Your task to perform on an android device: turn on data saver in the chrome app Image 0: 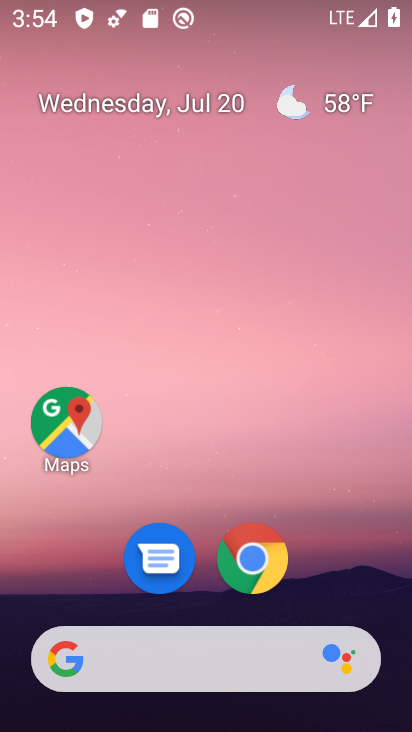
Step 0: click (266, 549)
Your task to perform on an android device: turn on data saver in the chrome app Image 1: 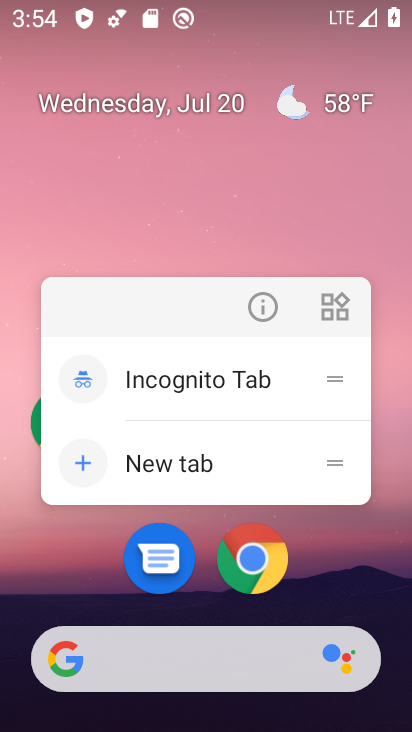
Step 1: click (266, 555)
Your task to perform on an android device: turn on data saver in the chrome app Image 2: 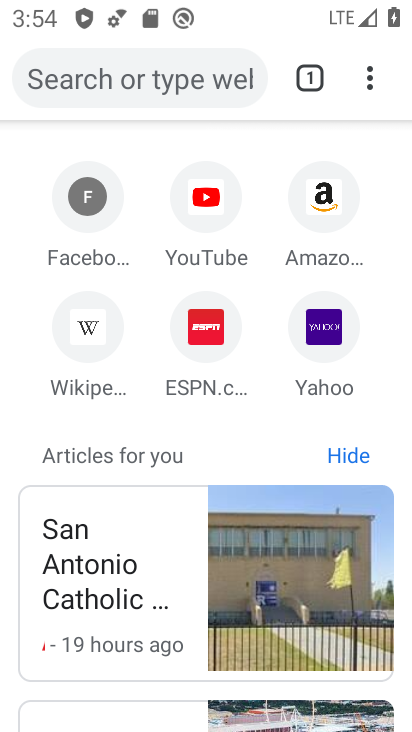
Step 2: drag from (372, 82) to (124, 633)
Your task to perform on an android device: turn on data saver in the chrome app Image 3: 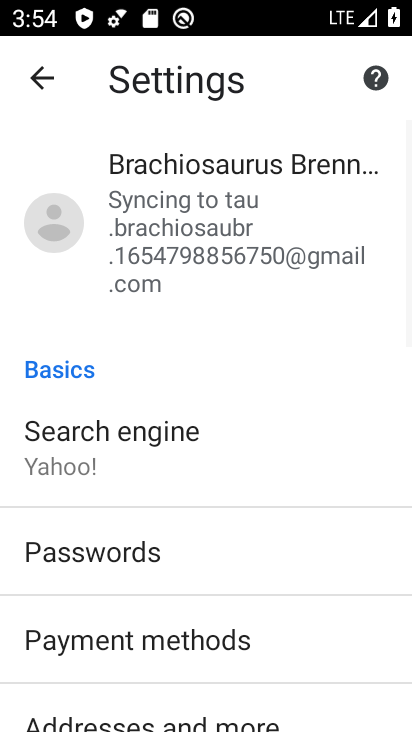
Step 3: drag from (139, 686) to (291, 136)
Your task to perform on an android device: turn on data saver in the chrome app Image 4: 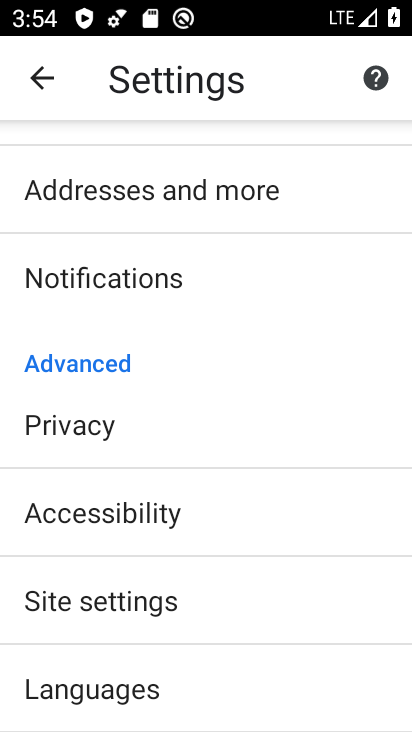
Step 4: drag from (105, 677) to (246, 181)
Your task to perform on an android device: turn on data saver in the chrome app Image 5: 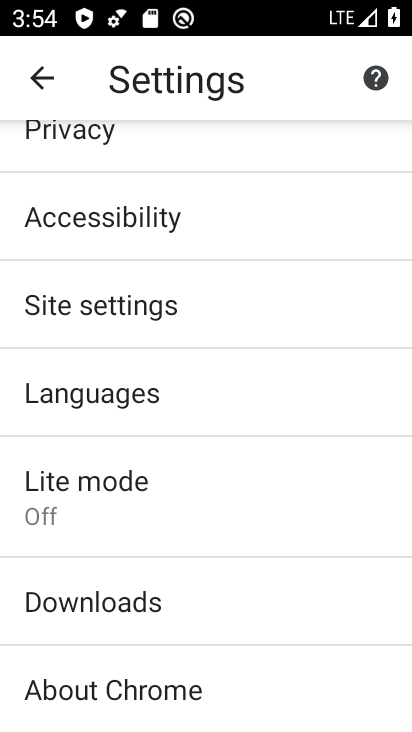
Step 5: click (141, 505)
Your task to perform on an android device: turn on data saver in the chrome app Image 6: 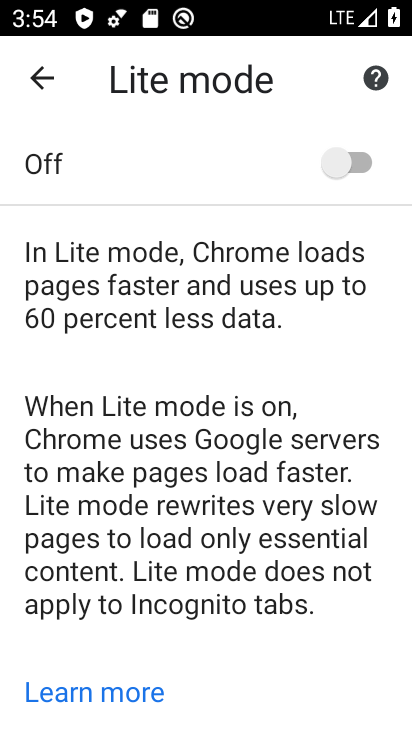
Step 6: click (330, 164)
Your task to perform on an android device: turn on data saver in the chrome app Image 7: 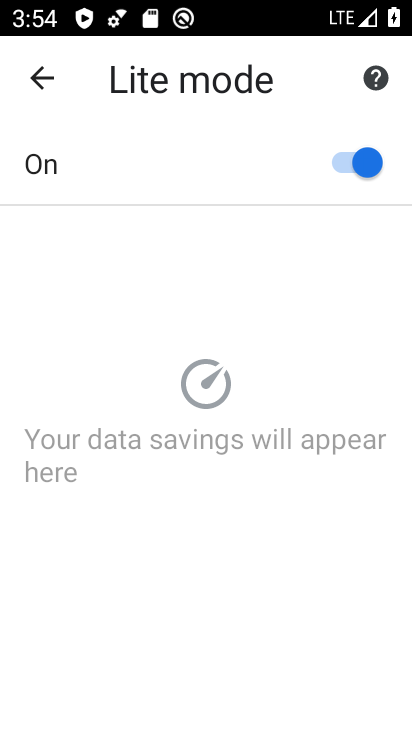
Step 7: task complete